Your task to perform on an android device: turn off airplane mode Image 0: 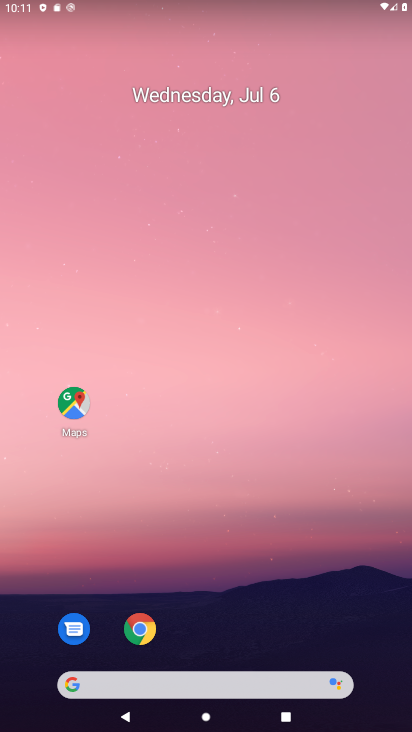
Step 0: drag from (238, 617) to (220, 186)
Your task to perform on an android device: turn off airplane mode Image 1: 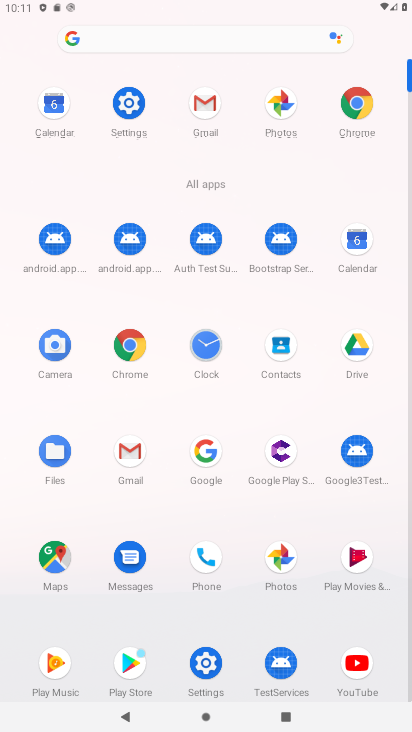
Step 1: click (120, 95)
Your task to perform on an android device: turn off airplane mode Image 2: 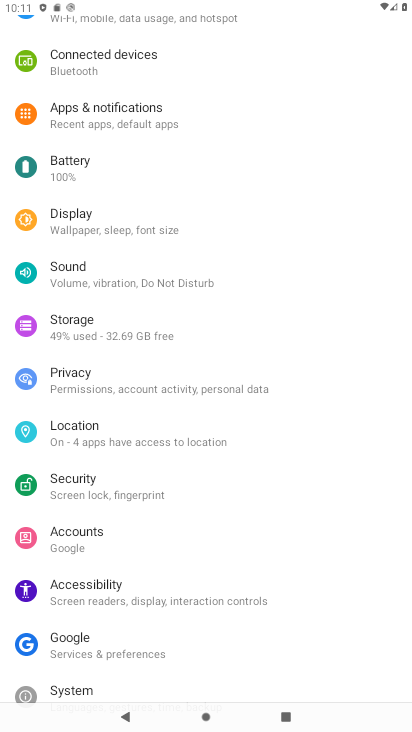
Step 2: drag from (194, 79) to (230, 483)
Your task to perform on an android device: turn off airplane mode Image 3: 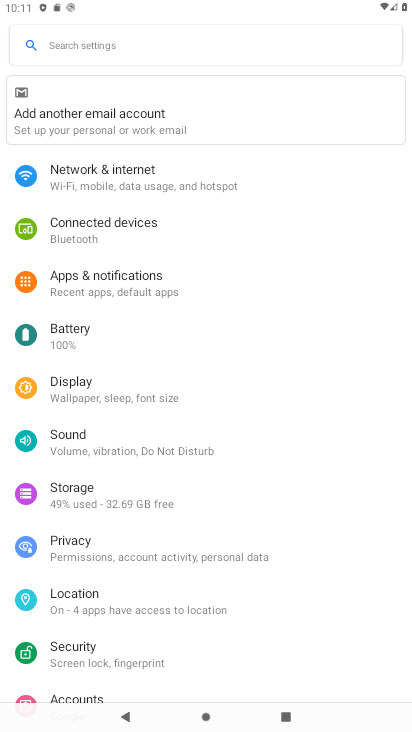
Step 3: click (228, 187)
Your task to perform on an android device: turn off airplane mode Image 4: 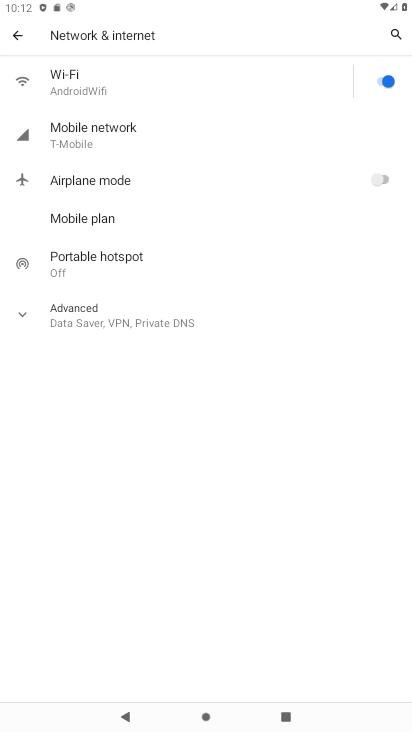
Step 4: task complete